Your task to perform on an android device: Open the map Image 0: 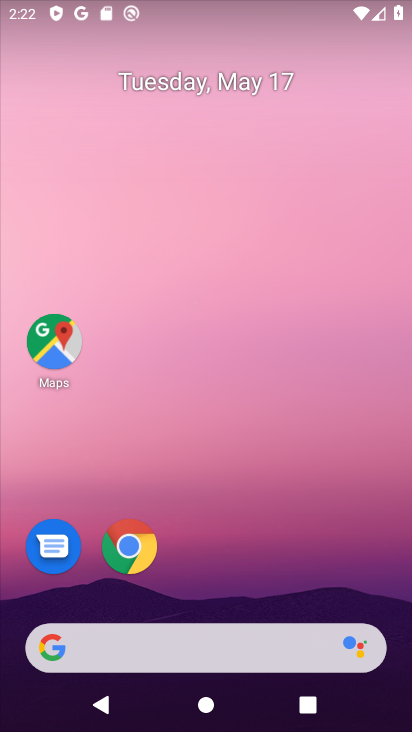
Step 0: click (50, 335)
Your task to perform on an android device: Open the map Image 1: 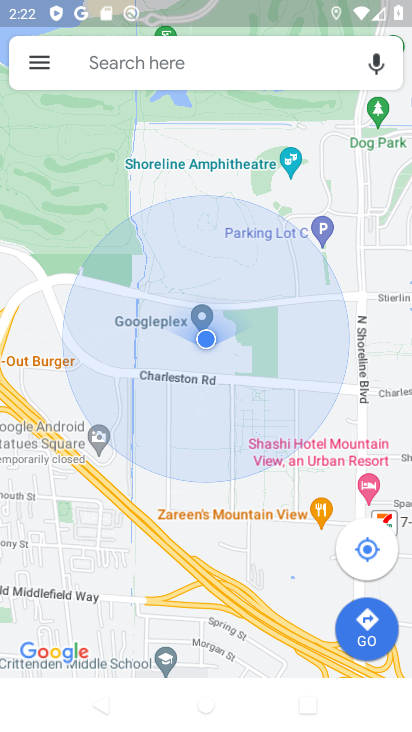
Step 1: task complete